Your task to perform on an android device: turn on priority inbox in the gmail app Image 0: 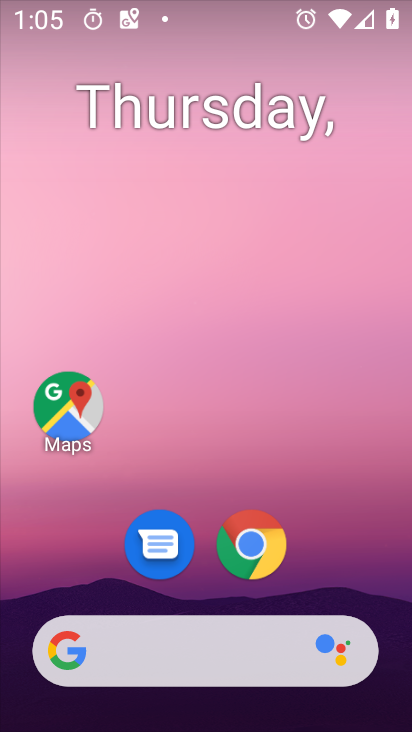
Step 0: drag from (65, 562) to (247, 203)
Your task to perform on an android device: turn on priority inbox in the gmail app Image 1: 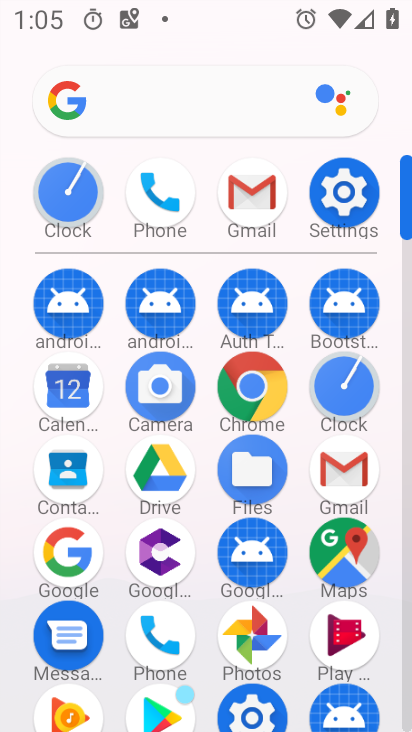
Step 1: click (335, 470)
Your task to perform on an android device: turn on priority inbox in the gmail app Image 2: 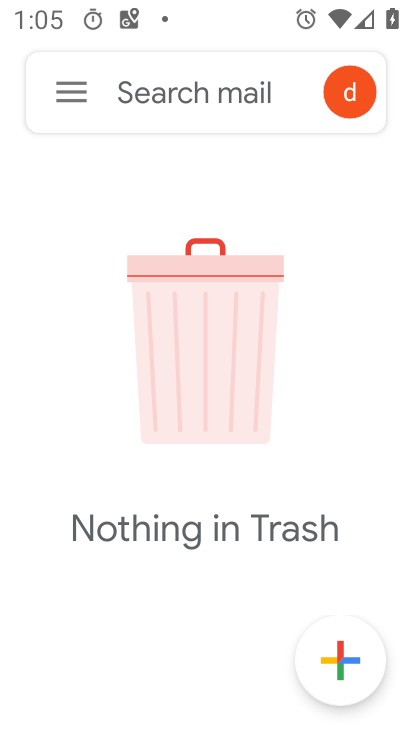
Step 2: click (70, 90)
Your task to perform on an android device: turn on priority inbox in the gmail app Image 3: 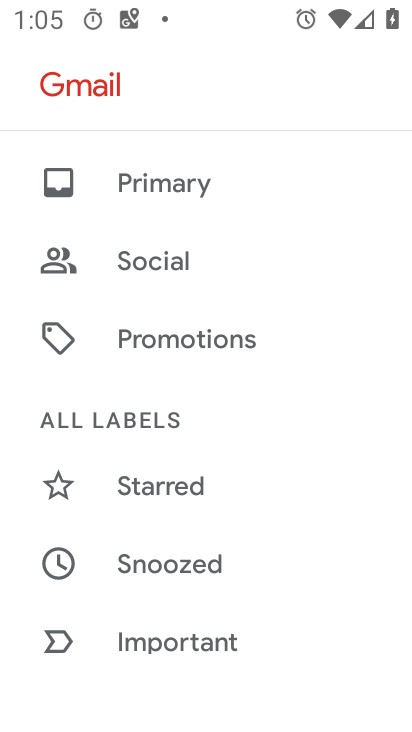
Step 3: drag from (182, 661) to (337, 109)
Your task to perform on an android device: turn on priority inbox in the gmail app Image 4: 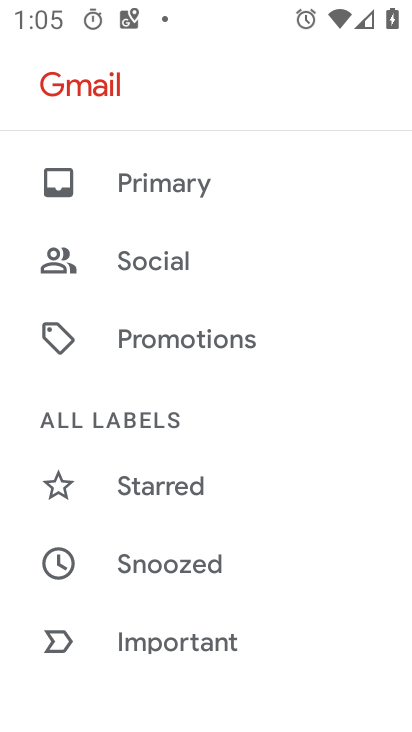
Step 4: drag from (59, 730) to (240, 262)
Your task to perform on an android device: turn on priority inbox in the gmail app Image 5: 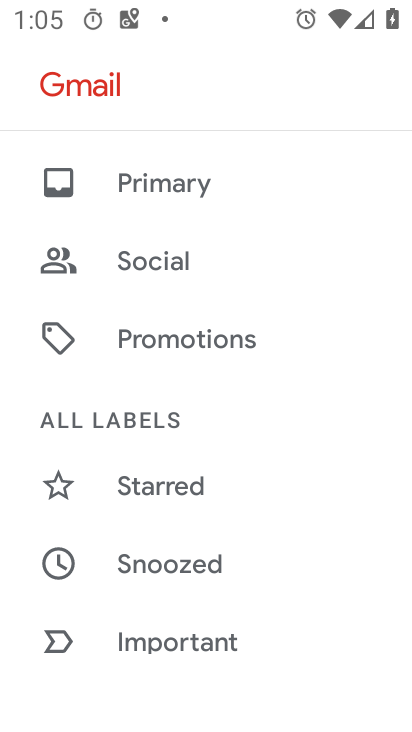
Step 5: drag from (49, 711) to (273, 236)
Your task to perform on an android device: turn on priority inbox in the gmail app Image 6: 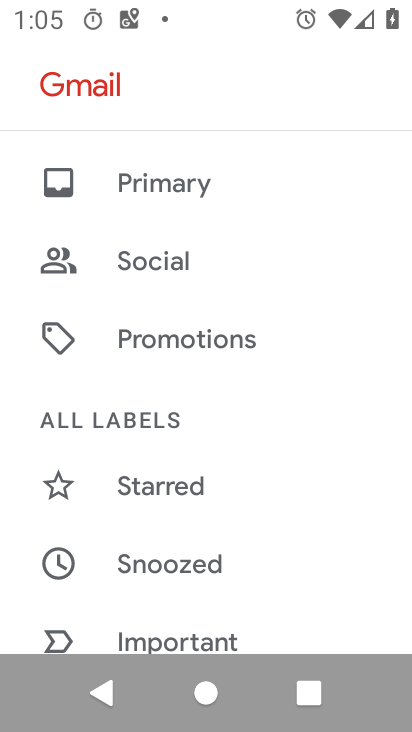
Step 6: drag from (86, 576) to (293, 202)
Your task to perform on an android device: turn on priority inbox in the gmail app Image 7: 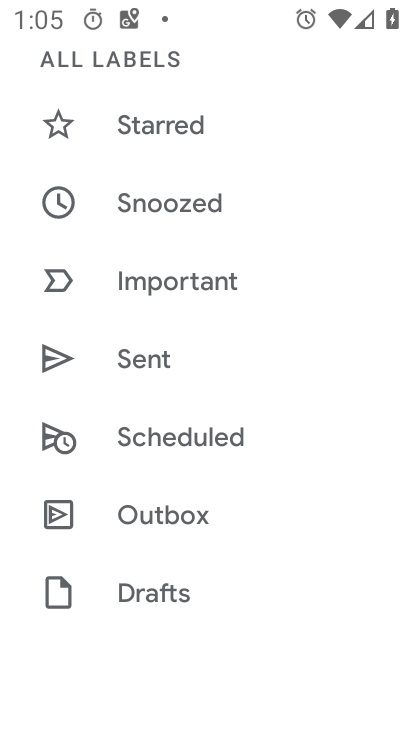
Step 7: drag from (170, 666) to (332, 174)
Your task to perform on an android device: turn on priority inbox in the gmail app Image 8: 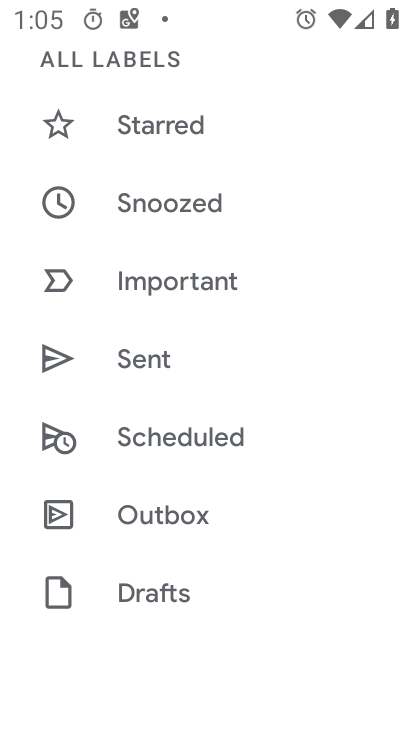
Step 8: drag from (163, 248) to (150, 640)
Your task to perform on an android device: turn on priority inbox in the gmail app Image 9: 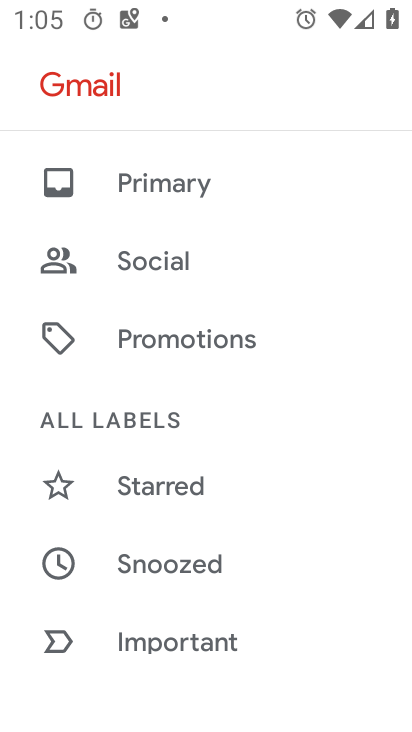
Step 9: drag from (133, 694) to (243, 264)
Your task to perform on an android device: turn on priority inbox in the gmail app Image 10: 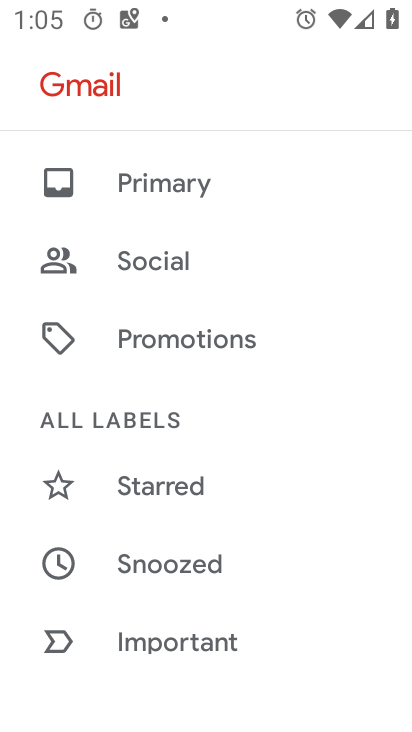
Step 10: drag from (141, 649) to (247, 203)
Your task to perform on an android device: turn on priority inbox in the gmail app Image 11: 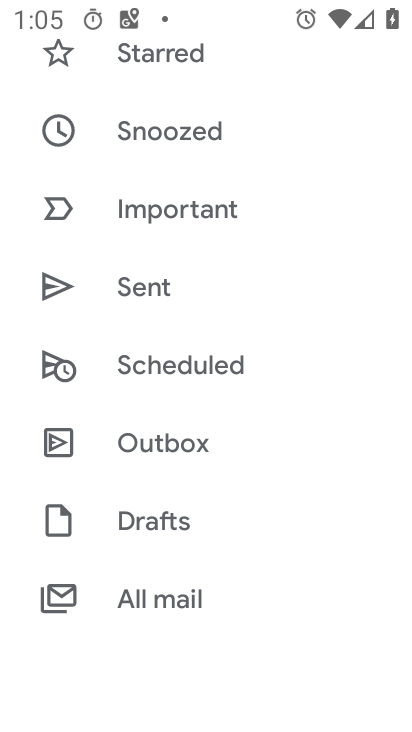
Step 11: drag from (94, 672) to (235, 244)
Your task to perform on an android device: turn on priority inbox in the gmail app Image 12: 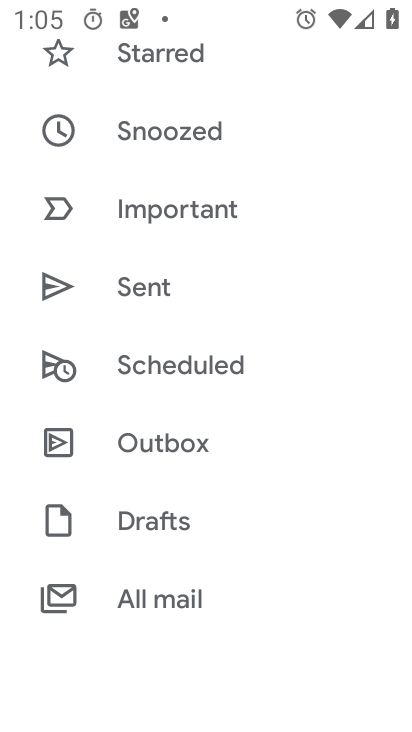
Step 12: drag from (185, 568) to (319, 144)
Your task to perform on an android device: turn on priority inbox in the gmail app Image 13: 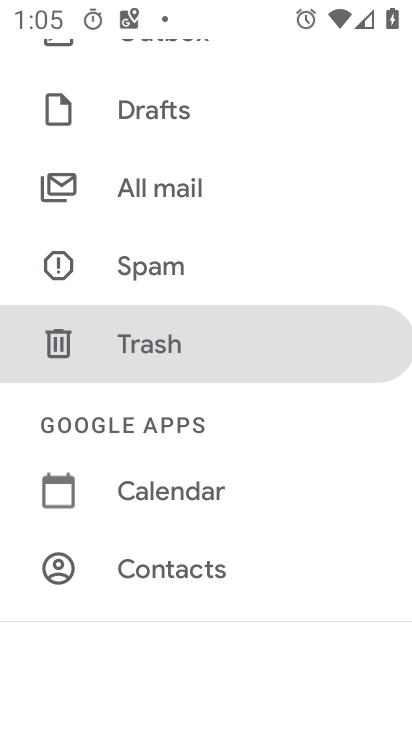
Step 13: drag from (11, 644) to (277, 182)
Your task to perform on an android device: turn on priority inbox in the gmail app Image 14: 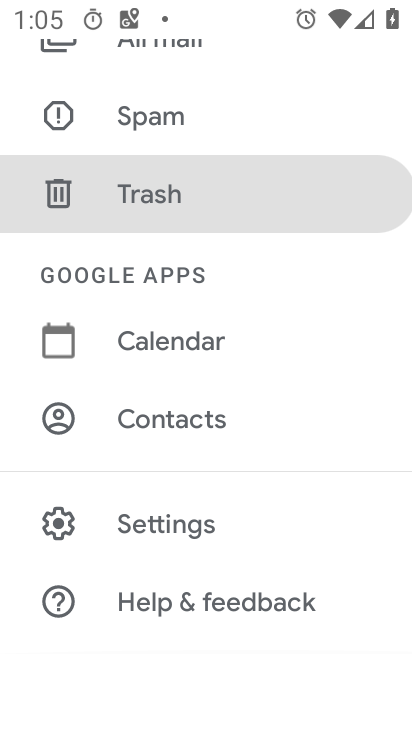
Step 14: drag from (17, 543) to (190, 282)
Your task to perform on an android device: turn on priority inbox in the gmail app Image 15: 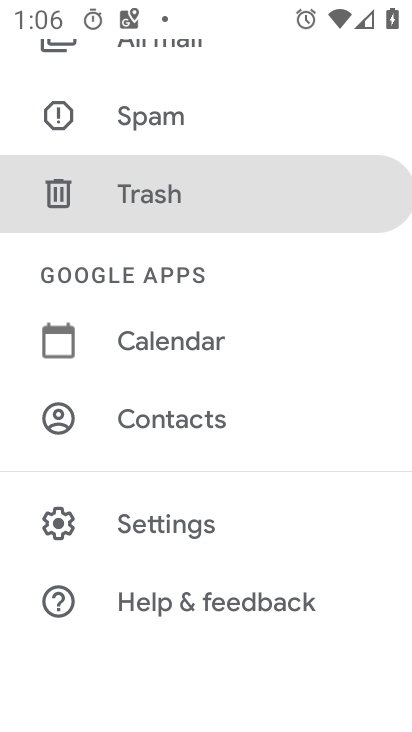
Step 15: click (182, 508)
Your task to perform on an android device: turn on priority inbox in the gmail app Image 16: 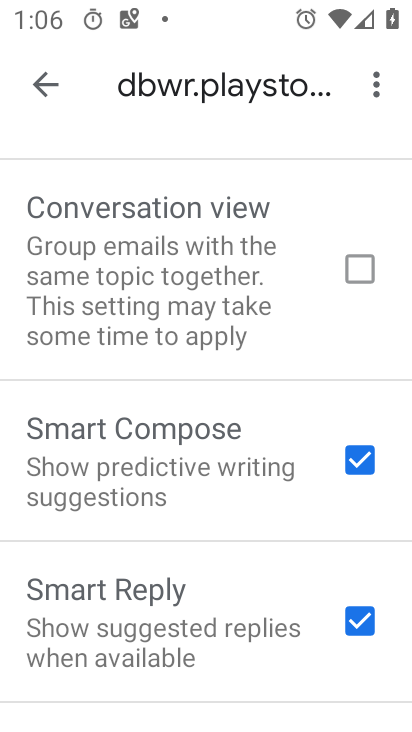
Step 16: drag from (141, 259) to (144, 675)
Your task to perform on an android device: turn on priority inbox in the gmail app Image 17: 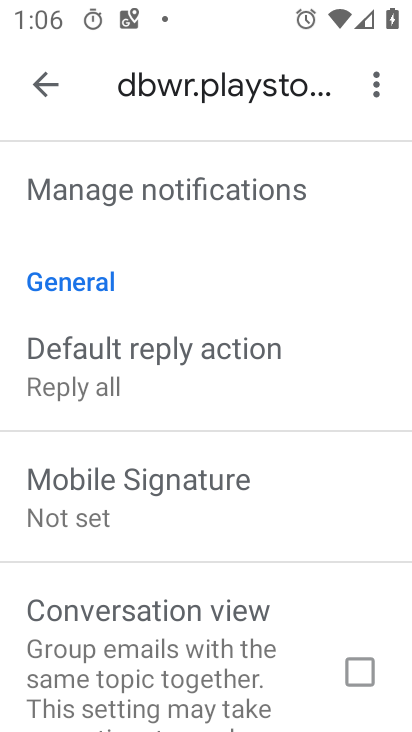
Step 17: drag from (159, 303) to (117, 713)
Your task to perform on an android device: turn on priority inbox in the gmail app Image 18: 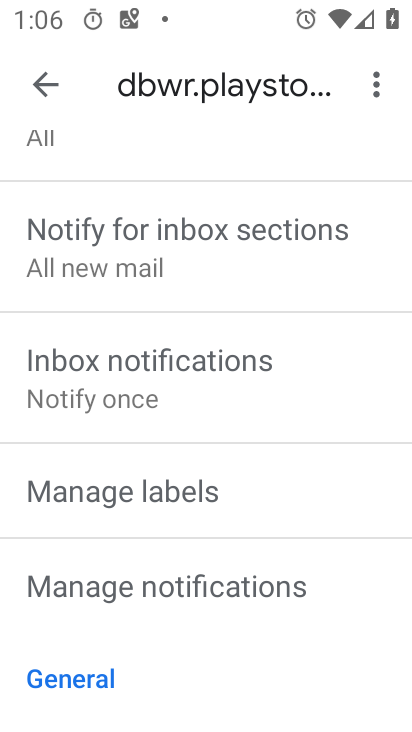
Step 18: drag from (161, 201) to (100, 693)
Your task to perform on an android device: turn on priority inbox in the gmail app Image 19: 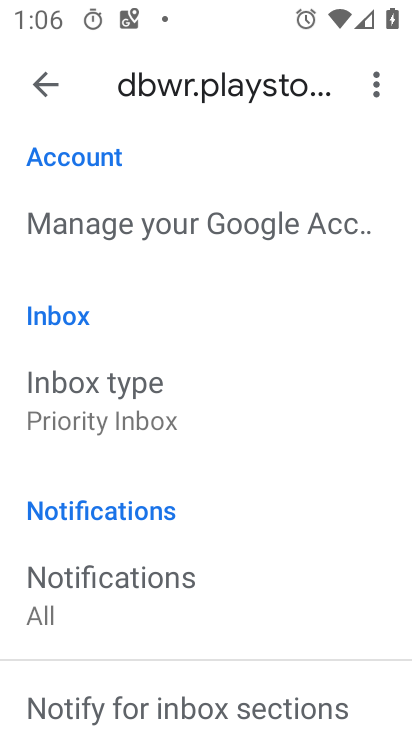
Step 19: click (200, 418)
Your task to perform on an android device: turn on priority inbox in the gmail app Image 20: 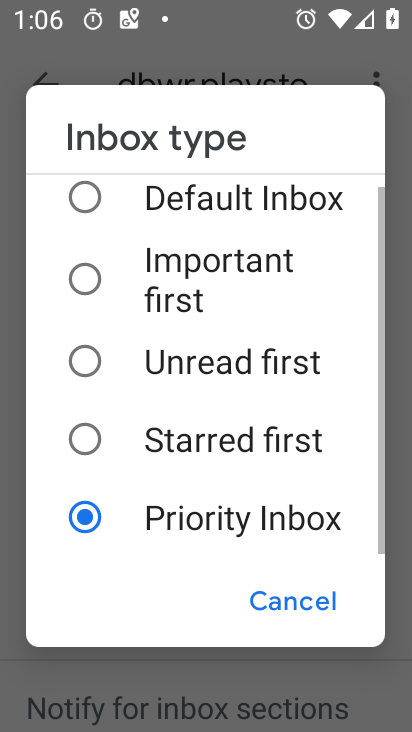
Step 20: click (290, 523)
Your task to perform on an android device: turn on priority inbox in the gmail app Image 21: 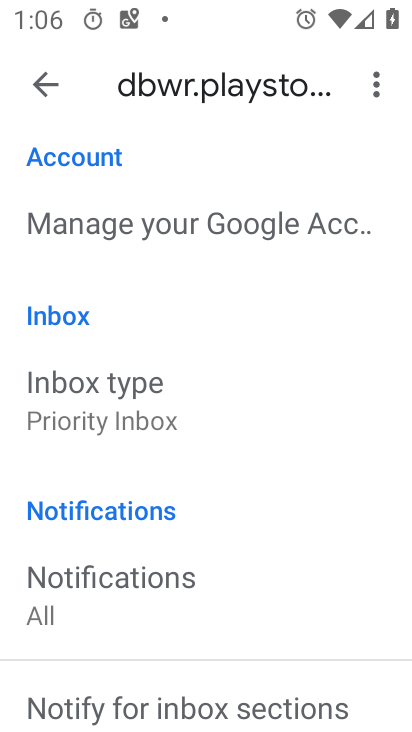
Step 21: task complete